Your task to perform on an android device: Set the phone to "Do not disturb". Image 0: 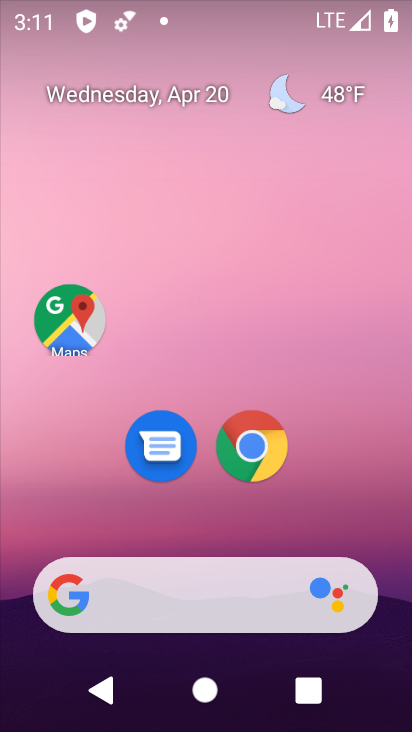
Step 0: drag from (309, 491) to (358, 64)
Your task to perform on an android device: Set the phone to "Do not disturb". Image 1: 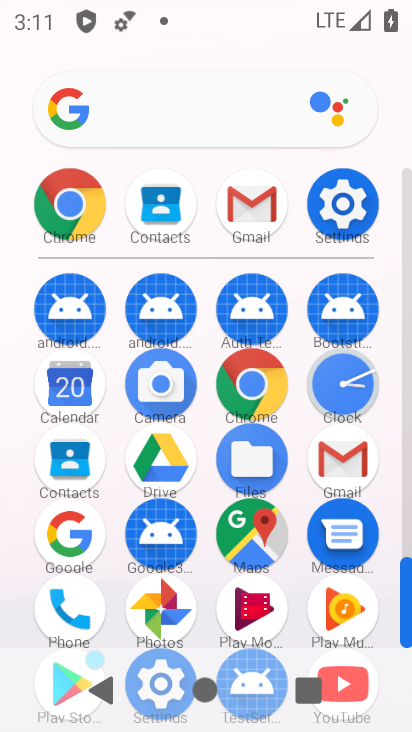
Step 1: click (342, 201)
Your task to perform on an android device: Set the phone to "Do not disturb". Image 2: 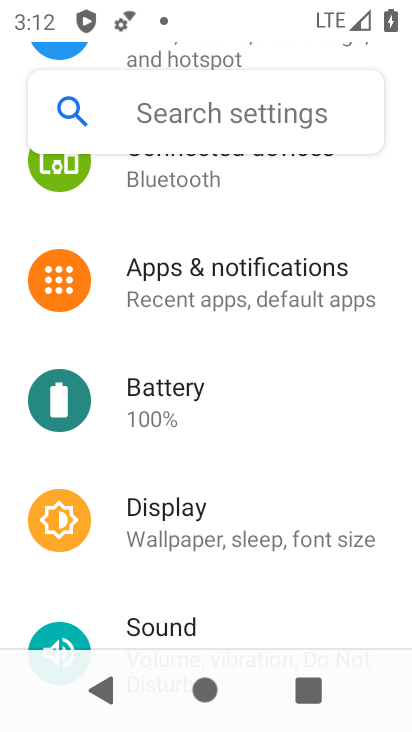
Step 2: drag from (246, 486) to (291, 311)
Your task to perform on an android device: Set the phone to "Do not disturb". Image 3: 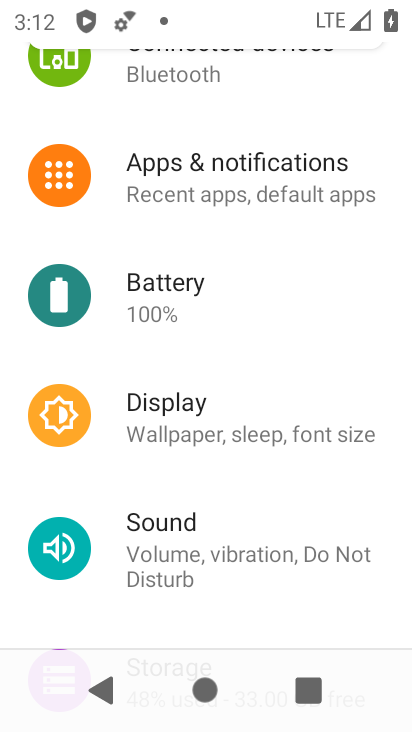
Step 3: click (246, 544)
Your task to perform on an android device: Set the phone to "Do not disturb". Image 4: 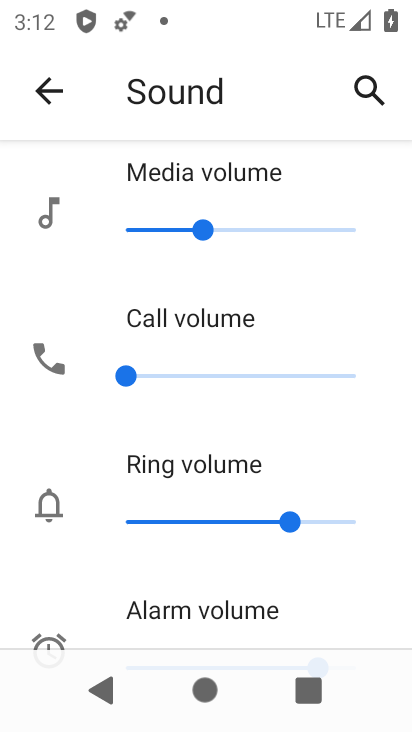
Step 4: drag from (282, 571) to (317, 328)
Your task to perform on an android device: Set the phone to "Do not disturb". Image 5: 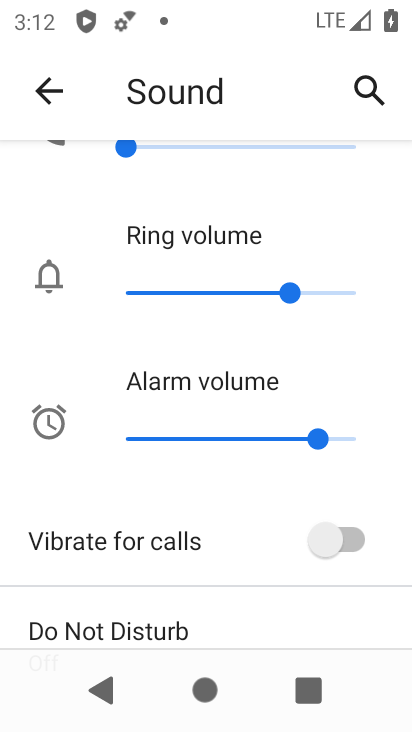
Step 5: drag from (241, 551) to (284, 345)
Your task to perform on an android device: Set the phone to "Do not disturb". Image 6: 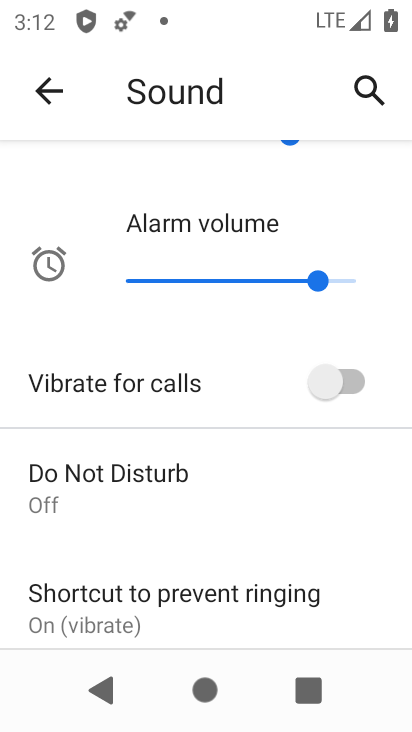
Step 6: click (123, 465)
Your task to perform on an android device: Set the phone to "Do not disturb". Image 7: 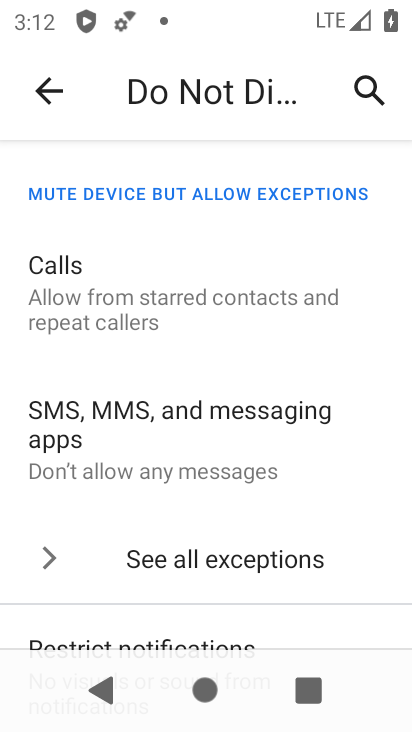
Step 7: drag from (221, 506) to (276, 296)
Your task to perform on an android device: Set the phone to "Do not disturb". Image 8: 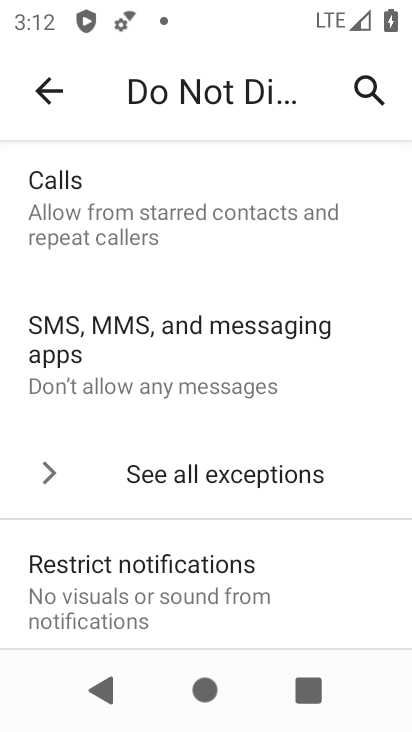
Step 8: drag from (303, 604) to (344, 415)
Your task to perform on an android device: Set the phone to "Do not disturb". Image 9: 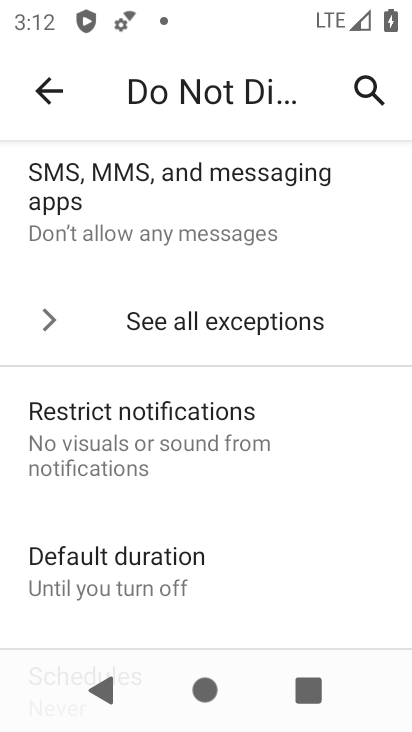
Step 9: drag from (267, 568) to (324, 339)
Your task to perform on an android device: Set the phone to "Do not disturb". Image 10: 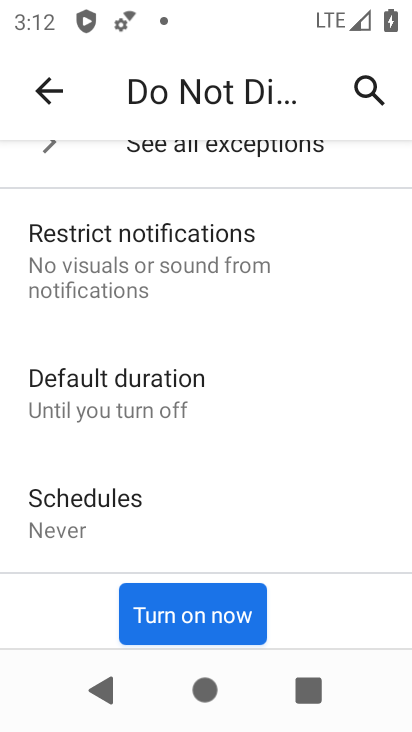
Step 10: click (215, 608)
Your task to perform on an android device: Set the phone to "Do not disturb". Image 11: 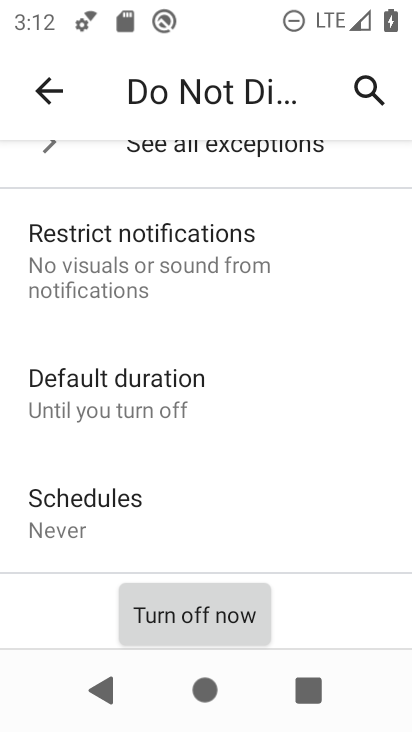
Step 11: task complete